Your task to perform on an android device: Open Yahoo.com Image 0: 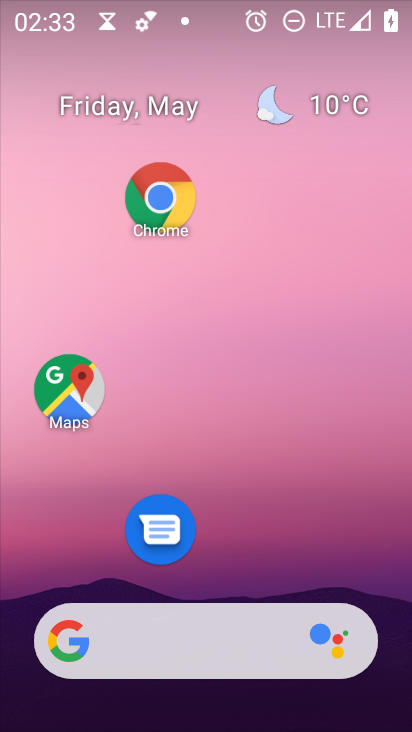
Step 0: drag from (295, 514) to (285, 245)
Your task to perform on an android device: Open Yahoo.com Image 1: 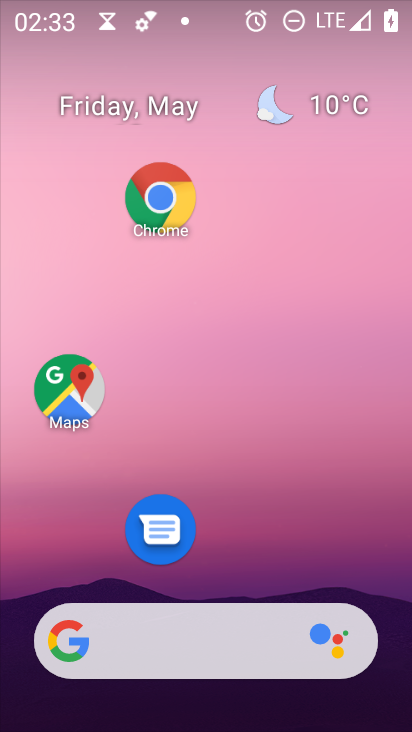
Step 1: drag from (265, 468) to (259, 190)
Your task to perform on an android device: Open Yahoo.com Image 2: 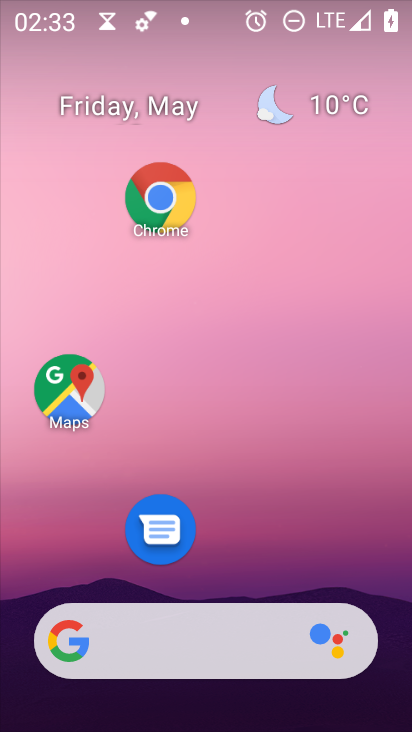
Step 2: drag from (222, 494) to (236, 238)
Your task to perform on an android device: Open Yahoo.com Image 3: 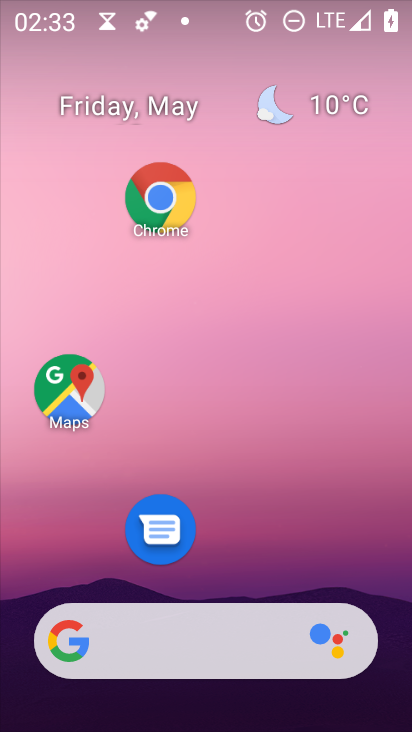
Step 3: drag from (248, 526) to (274, 268)
Your task to perform on an android device: Open Yahoo.com Image 4: 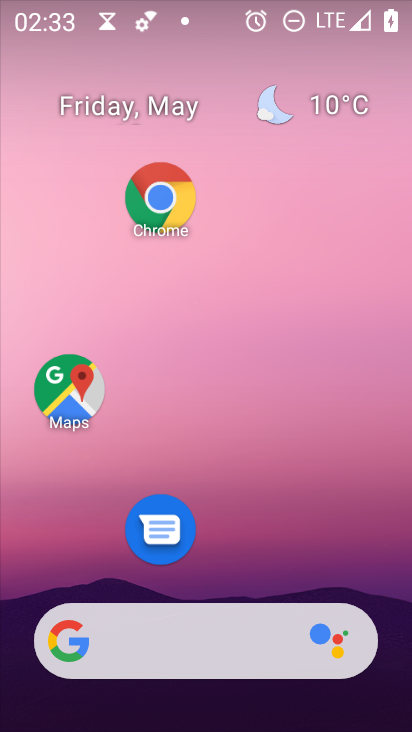
Step 4: click (160, 206)
Your task to perform on an android device: Open Yahoo.com Image 5: 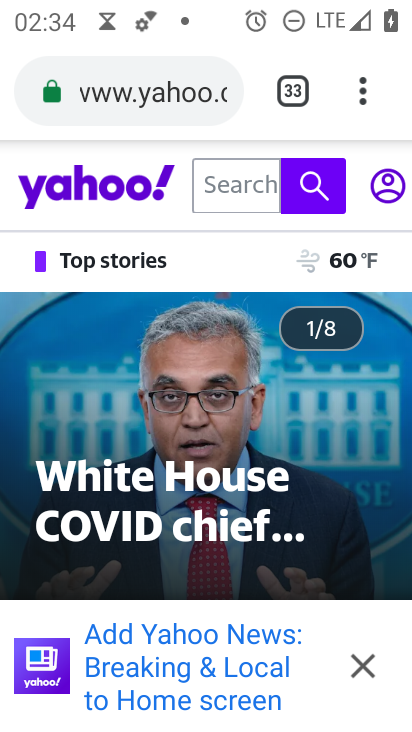
Step 5: task complete